Your task to perform on an android device: change notifications settings Image 0: 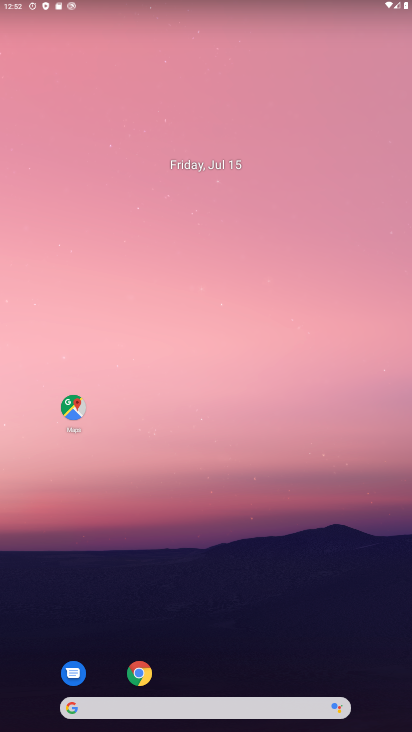
Step 0: drag from (326, 656) to (356, 130)
Your task to perform on an android device: change notifications settings Image 1: 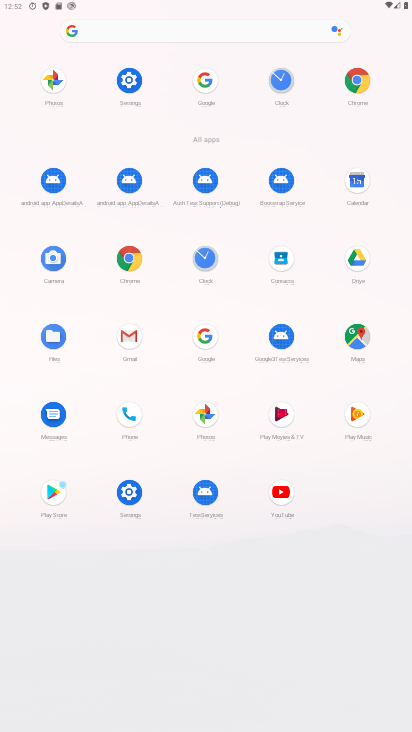
Step 1: click (136, 97)
Your task to perform on an android device: change notifications settings Image 2: 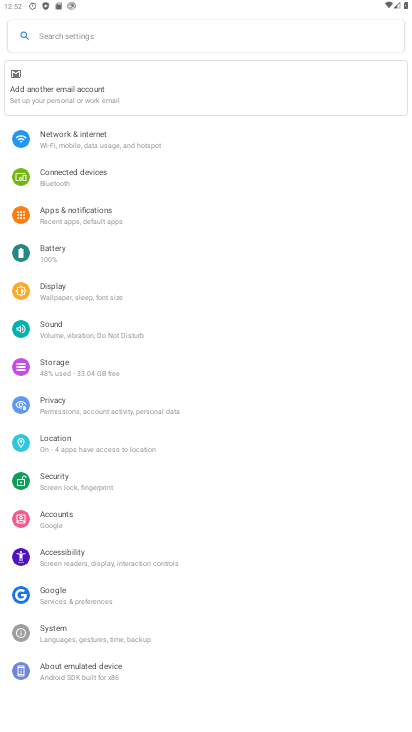
Step 2: click (101, 218)
Your task to perform on an android device: change notifications settings Image 3: 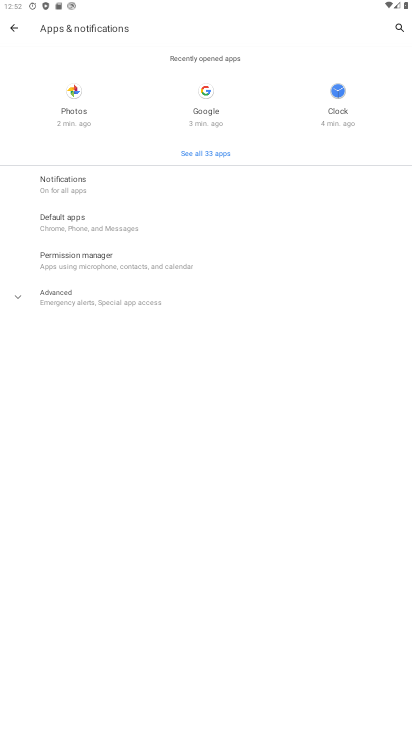
Step 3: click (66, 191)
Your task to perform on an android device: change notifications settings Image 4: 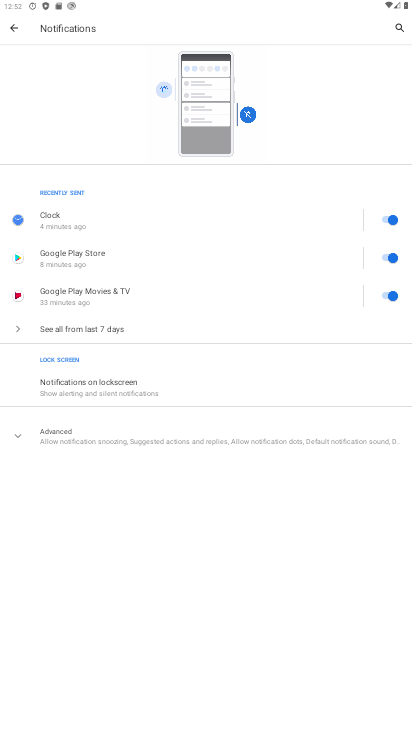
Step 4: click (104, 444)
Your task to perform on an android device: change notifications settings Image 5: 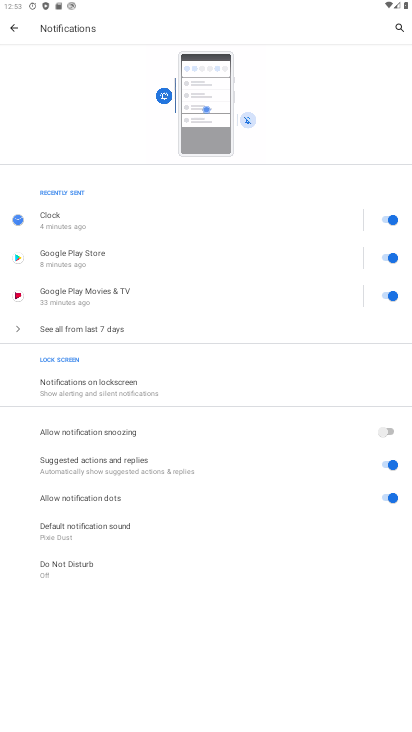
Step 5: click (389, 225)
Your task to perform on an android device: change notifications settings Image 6: 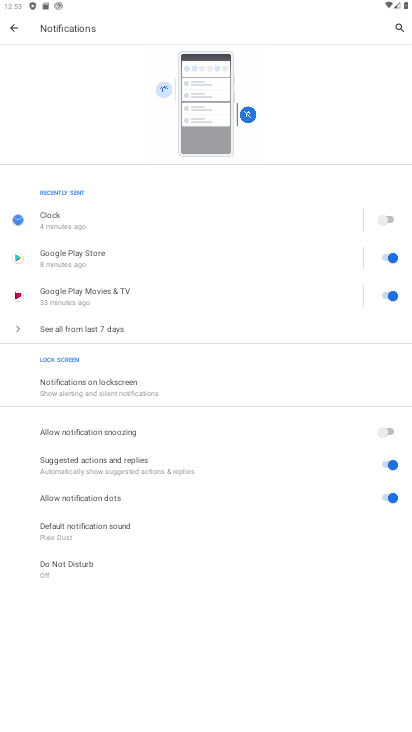
Step 6: task complete